Your task to perform on an android device: Open eBay Image 0: 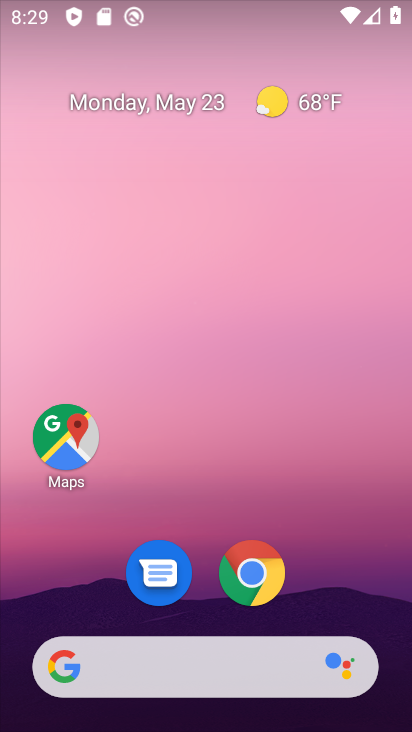
Step 0: press home button
Your task to perform on an android device: Open eBay Image 1: 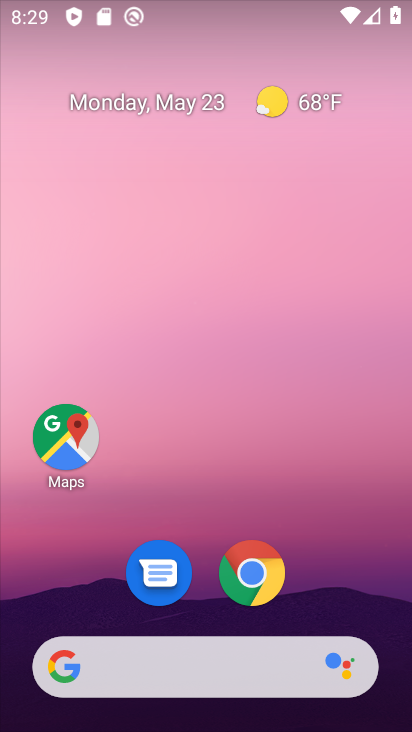
Step 1: click (249, 568)
Your task to perform on an android device: Open eBay Image 2: 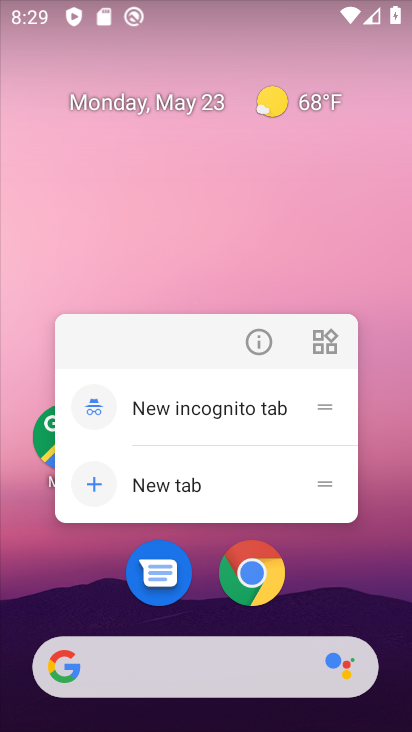
Step 2: click (241, 568)
Your task to perform on an android device: Open eBay Image 3: 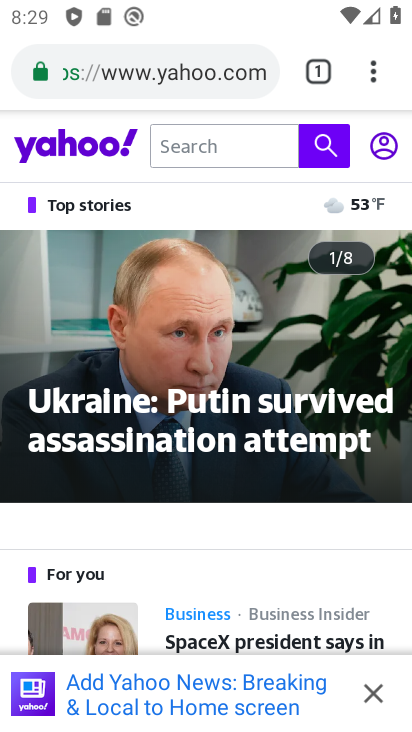
Step 3: click (318, 64)
Your task to perform on an android device: Open eBay Image 4: 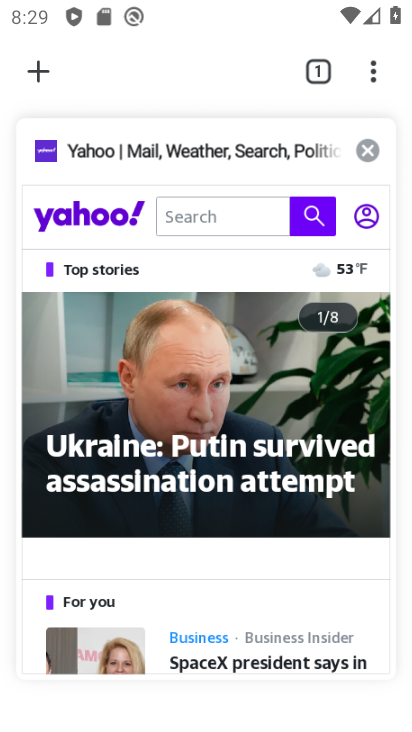
Step 4: click (366, 146)
Your task to perform on an android device: Open eBay Image 5: 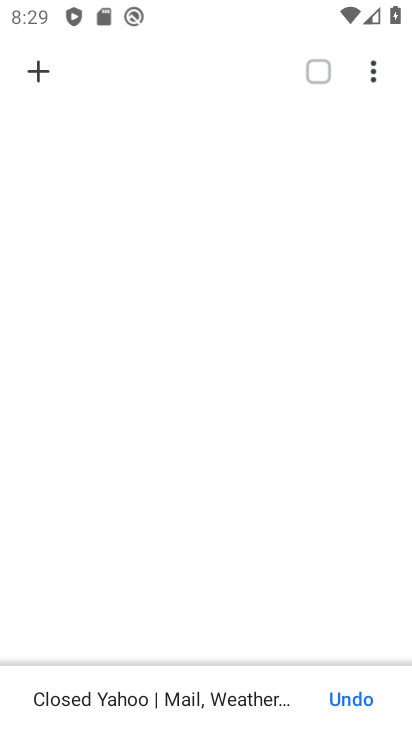
Step 5: click (45, 69)
Your task to perform on an android device: Open eBay Image 6: 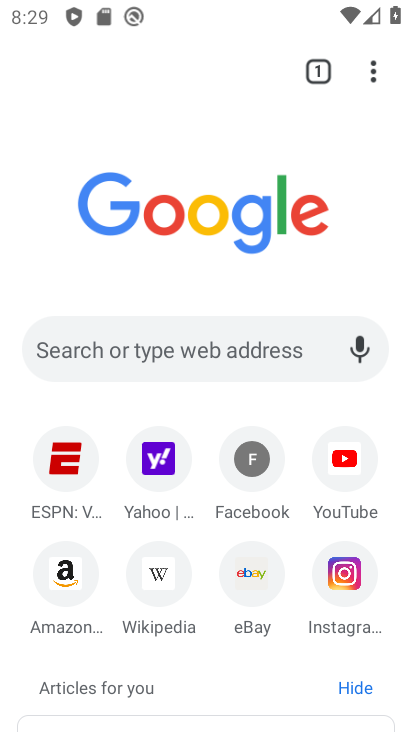
Step 6: click (237, 568)
Your task to perform on an android device: Open eBay Image 7: 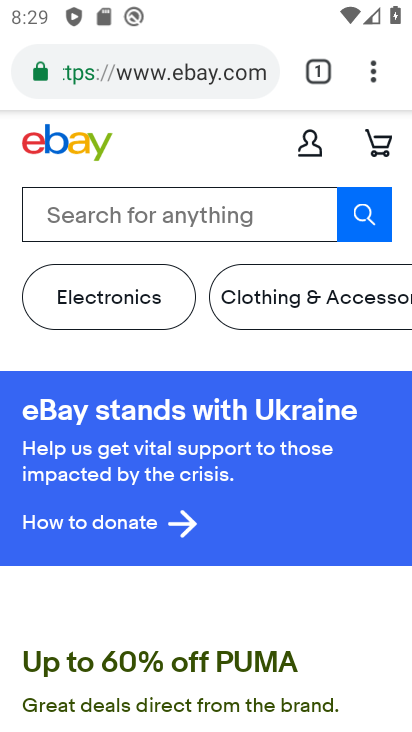
Step 7: task complete